Your task to perform on an android device: change the clock display to analog Image 0: 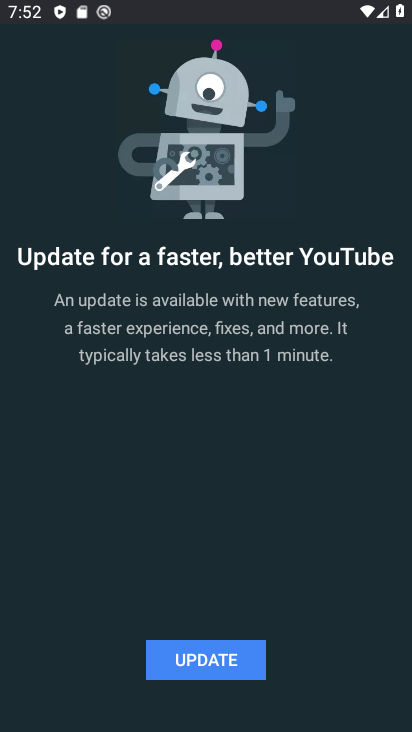
Step 0: press back button
Your task to perform on an android device: change the clock display to analog Image 1: 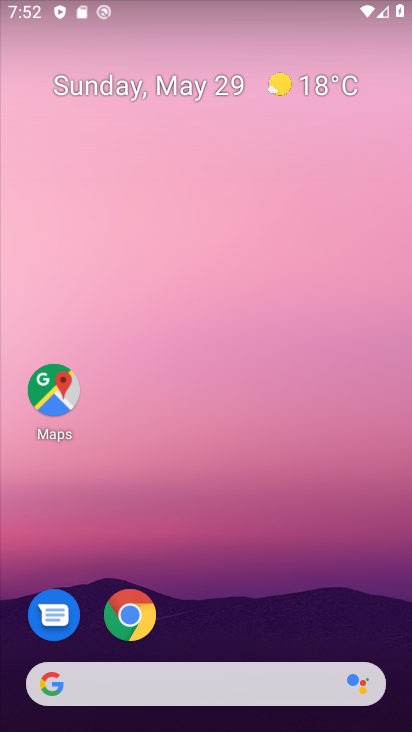
Step 1: drag from (93, 724) to (155, 0)
Your task to perform on an android device: change the clock display to analog Image 2: 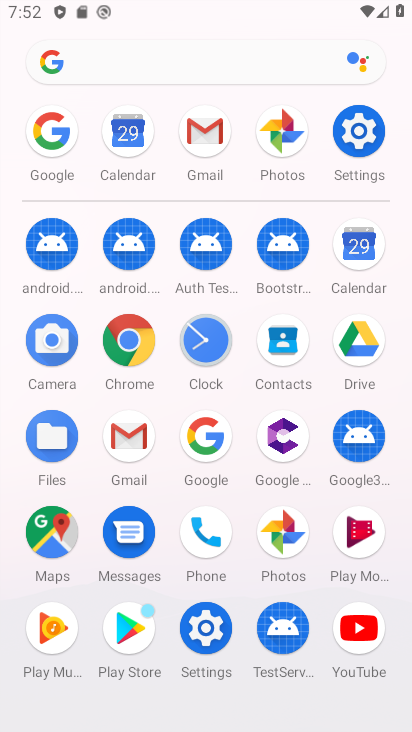
Step 2: click (215, 334)
Your task to perform on an android device: change the clock display to analog Image 3: 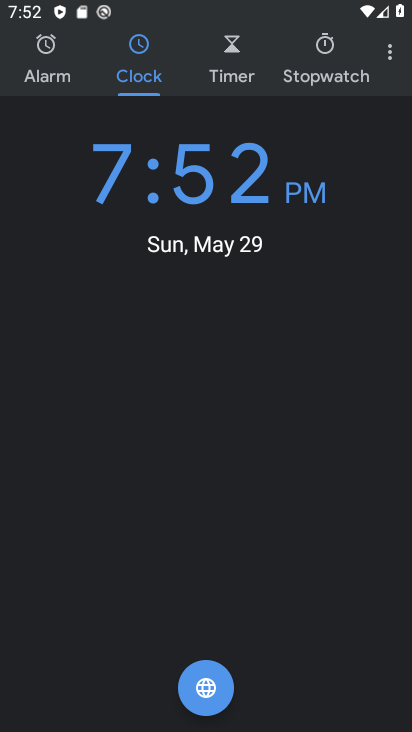
Step 3: click (388, 66)
Your task to perform on an android device: change the clock display to analog Image 4: 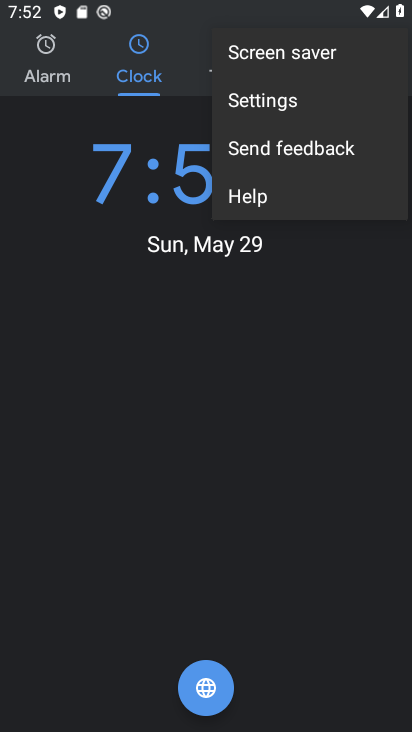
Step 4: click (294, 107)
Your task to perform on an android device: change the clock display to analog Image 5: 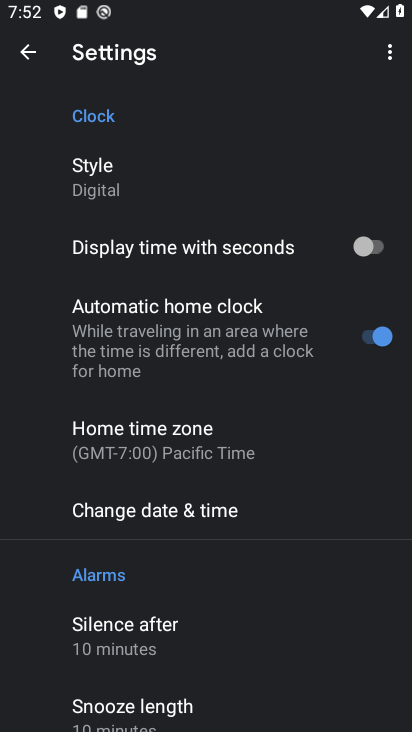
Step 5: click (259, 196)
Your task to perform on an android device: change the clock display to analog Image 6: 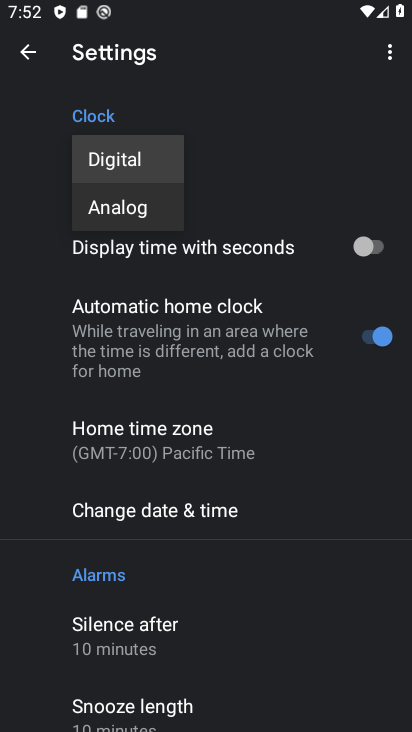
Step 6: click (137, 221)
Your task to perform on an android device: change the clock display to analog Image 7: 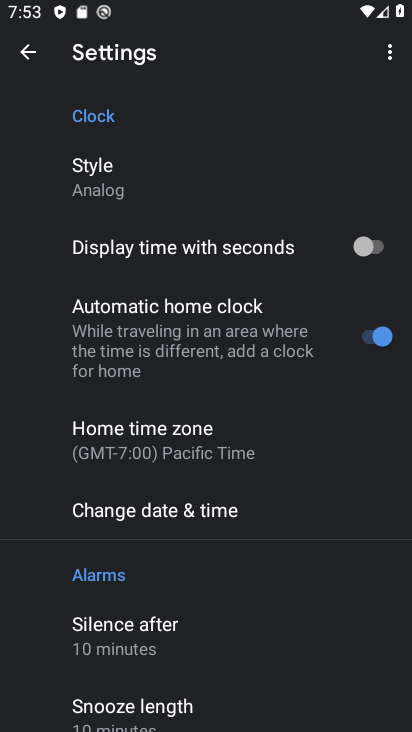
Step 7: task complete